Your task to perform on an android device: check out phone information Image 0: 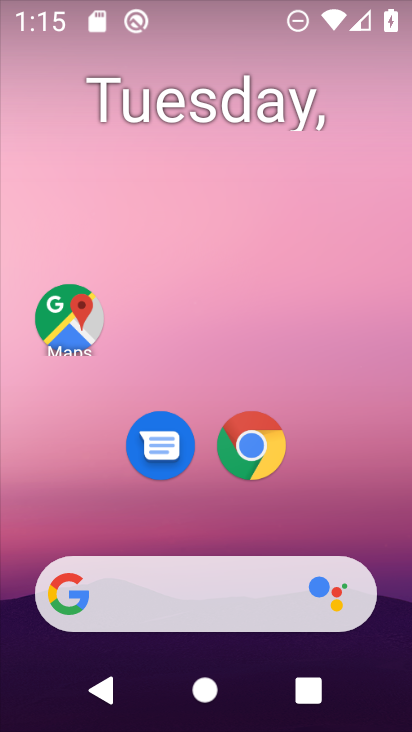
Step 0: drag from (319, 524) to (344, 185)
Your task to perform on an android device: check out phone information Image 1: 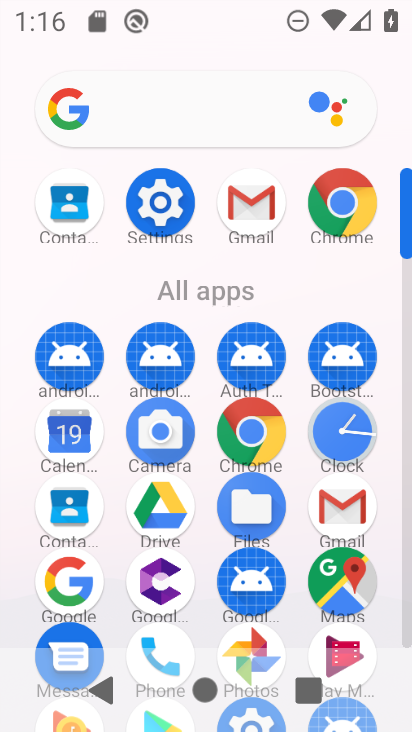
Step 1: click (172, 224)
Your task to perform on an android device: check out phone information Image 2: 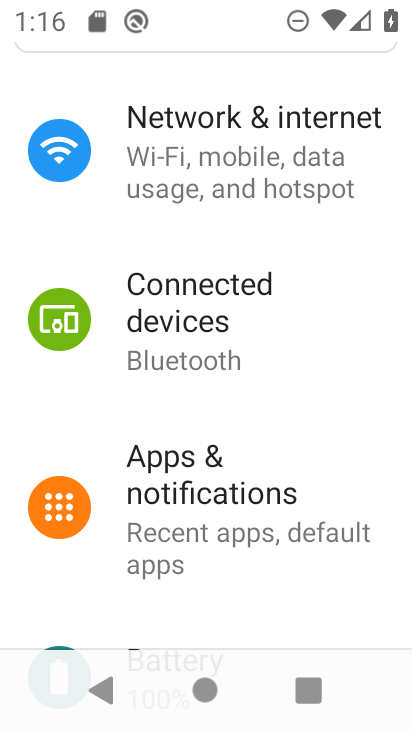
Step 2: drag from (211, 548) to (301, 124)
Your task to perform on an android device: check out phone information Image 3: 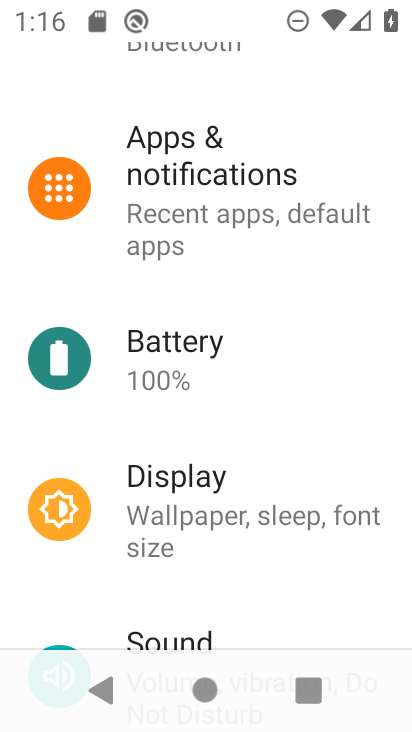
Step 3: drag from (257, 498) to (315, 152)
Your task to perform on an android device: check out phone information Image 4: 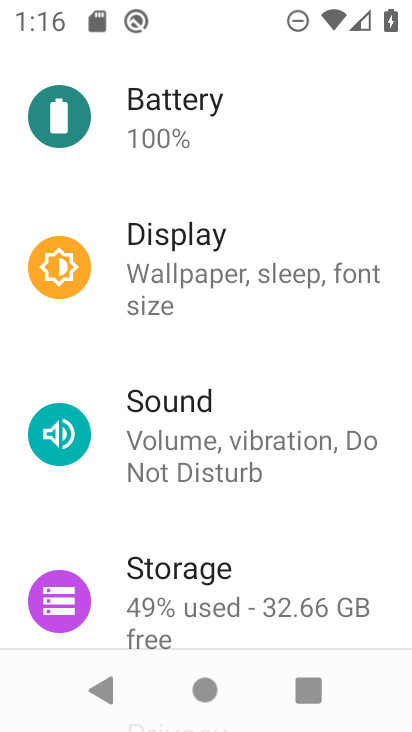
Step 4: drag from (235, 519) to (266, 192)
Your task to perform on an android device: check out phone information Image 5: 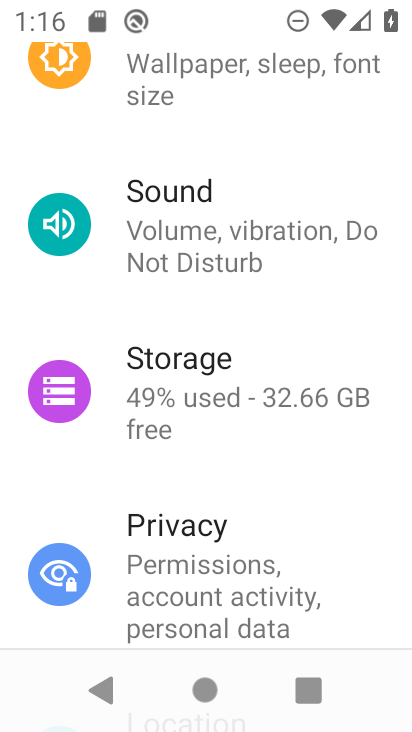
Step 5: drag from (255, 468) to (349, 172)
Your task to perform on an android device: check out phone information Image 6: 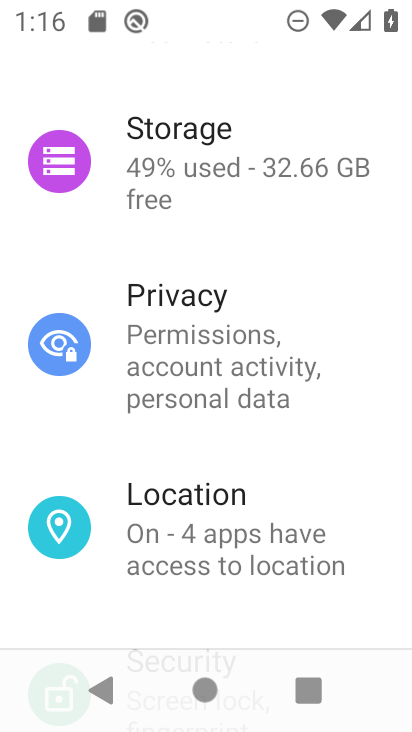
Step 6: drag from (270, 532) to (331, 161)
Your task to perform on an android device: check out phone information Image 7: 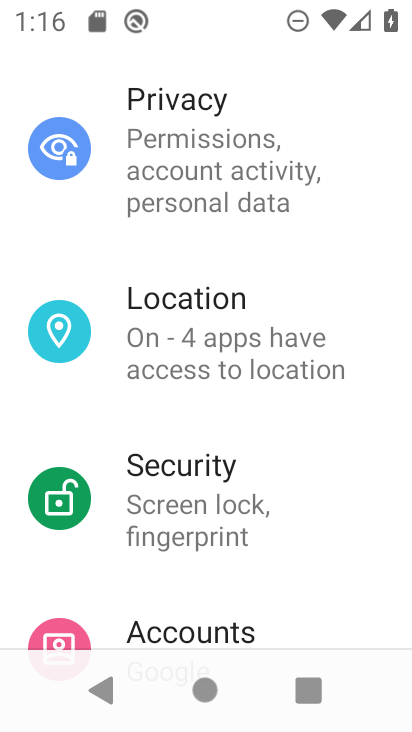
Step 7: drag from (248, 545) to (293, 160)
Your task to perform on an android device: check out phone information Image 8: 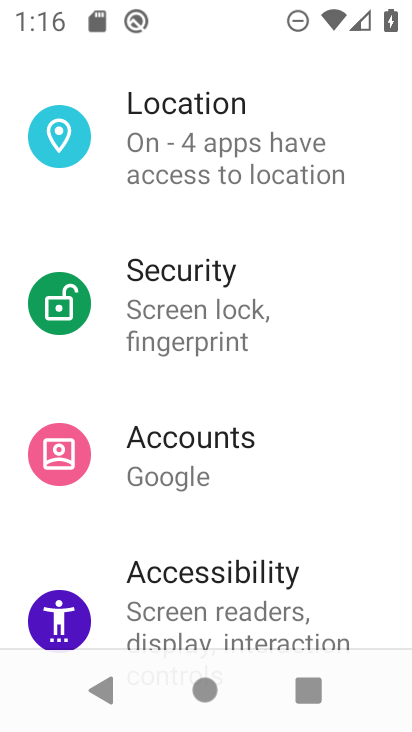
Step 8: drag from (239, 584) to (311, 189)
Your task to perform on an android device: check out phone information Image 9: 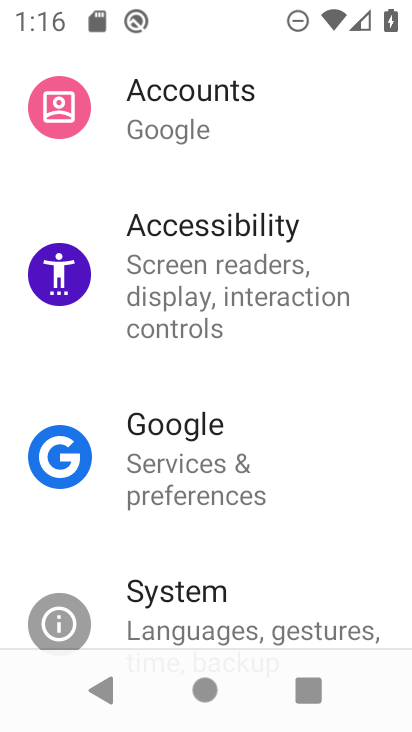
Step 9: drag from (118, 579) to (225, 174)
Your task to perform on an android device: check out phone information Image 10: 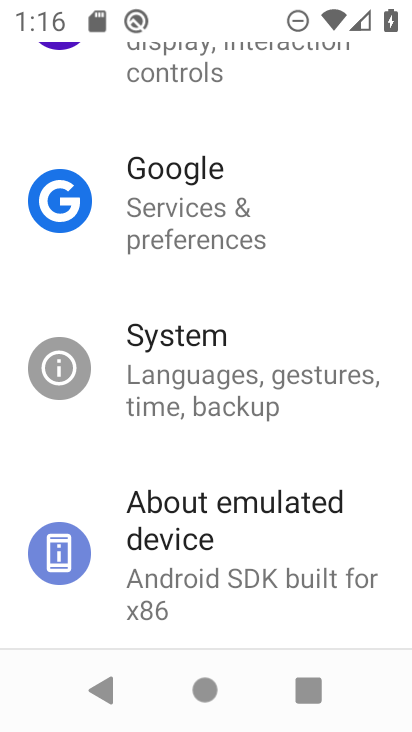
Step 10: click (195, 530)
Your task to perform on an android device: check out phone information Image 11: 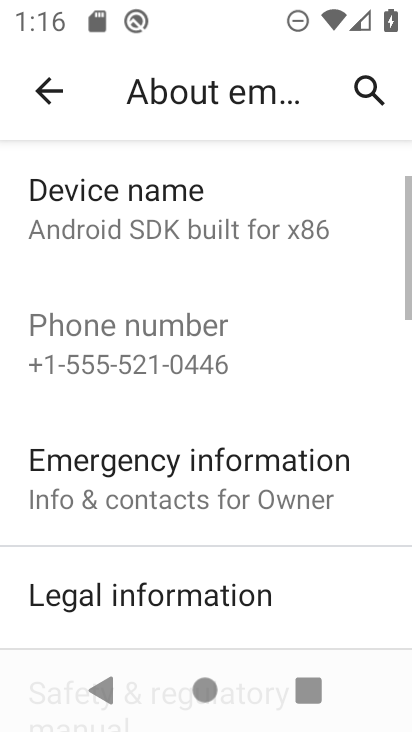
Step 11: task complete